Your task to perform on an android device: open a new tab in the chrome app Image 0: 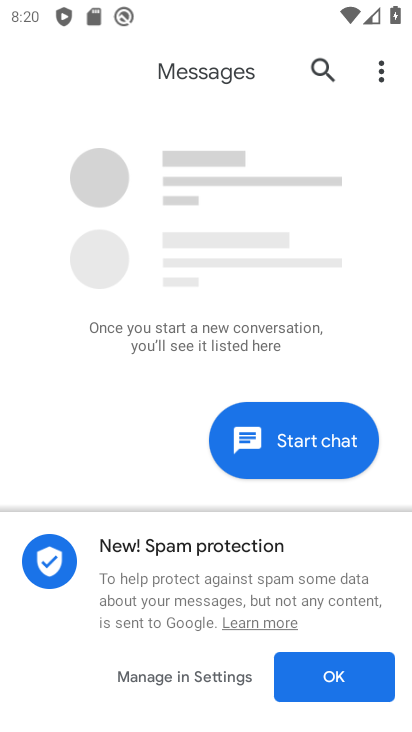
Step 0: press home button
Your task to perform on an android device: open a new tab in the chrome app Image 1: 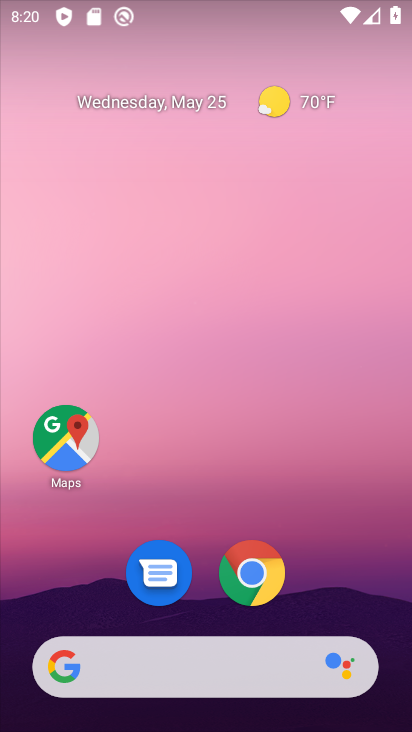
Step 1: click (279, 576)
Your task to perform on an android device: open a new tab in the chrome app Image 2: 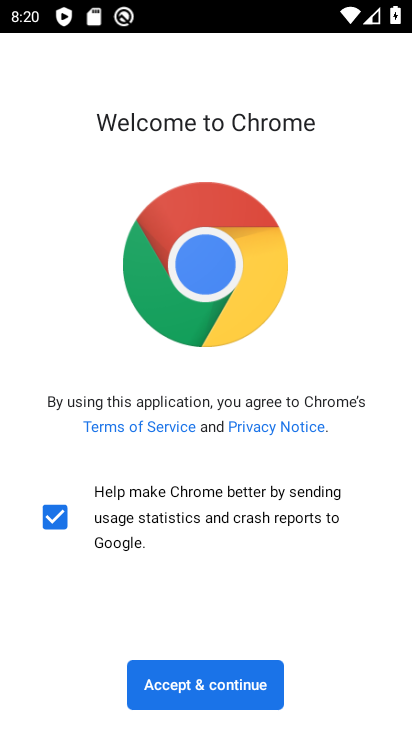
Step 2: click (261, 686)
Your task to perform on an android device: open a new tab in the chrome app Image 3: 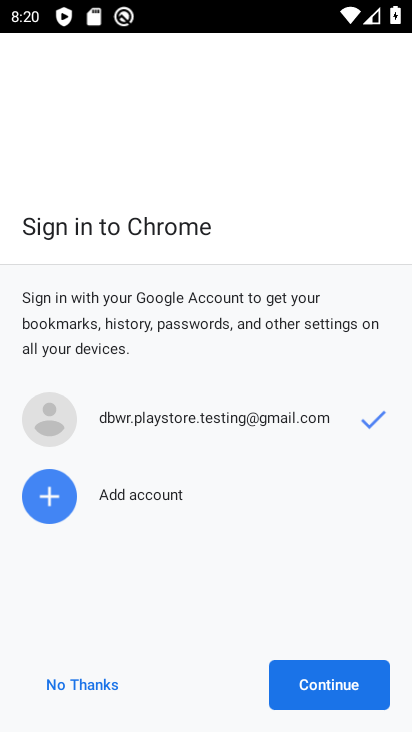
Step 3: click (294, 688)
Your task to perform on an android device: open a new tab in the chrome app Image 4: 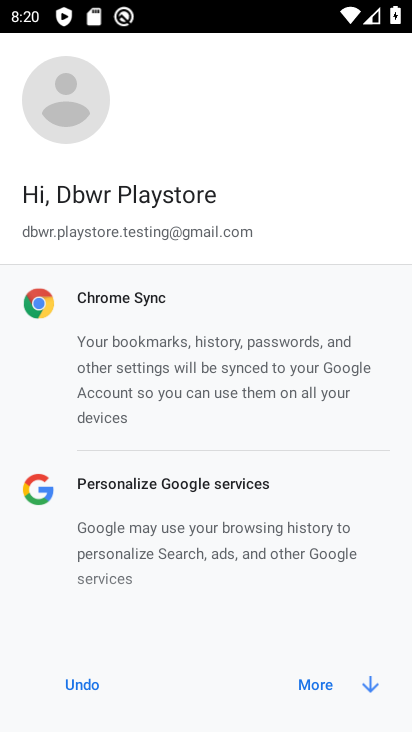
Step 4: click (311, 688)
Your task to perform on an android device: open a new tab in the chrome app Image 5: 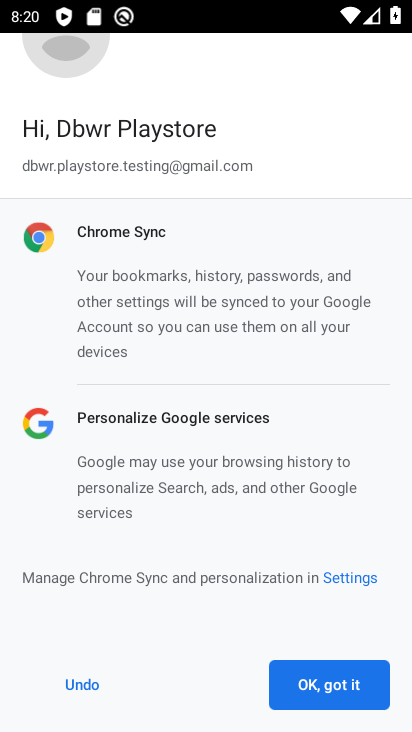
Step 5: click (311, 688)
Your task to perform on an android device: open a new tab in the chrome app Image 6: 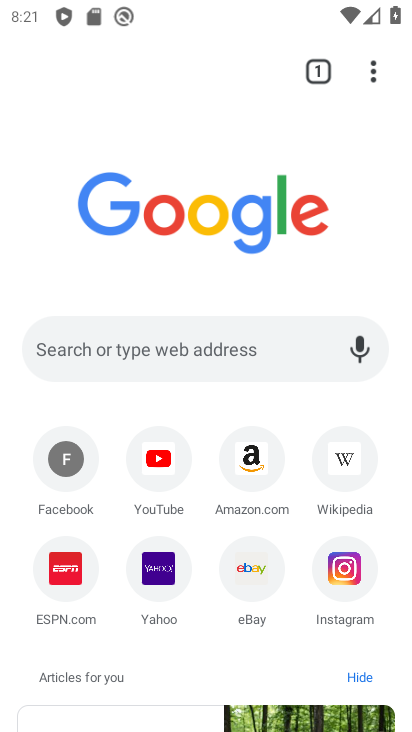
Step 6: click (367, 70)
Your task to perform on an android device: open a new tab in the chrome app Image 7: 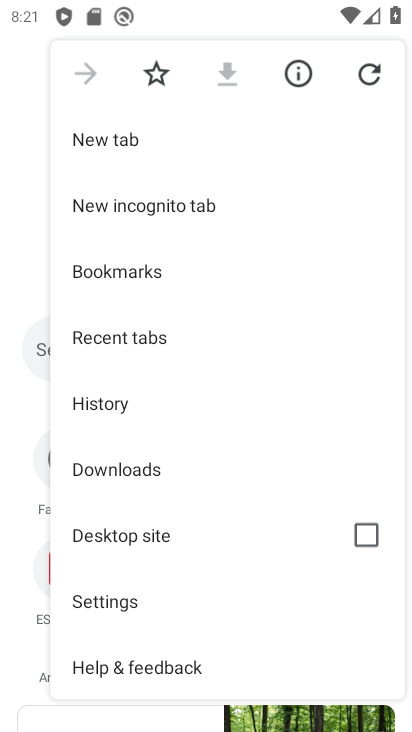
Step 7: click (178, 131)
Your task to perform on an android device: open a new tab in the chrome app Image 8: 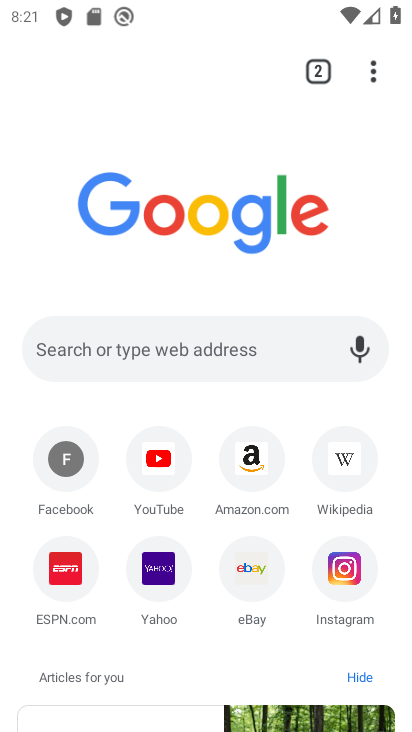
Step 8: task complete